Your task to perform on an android device: check storage Image 0: 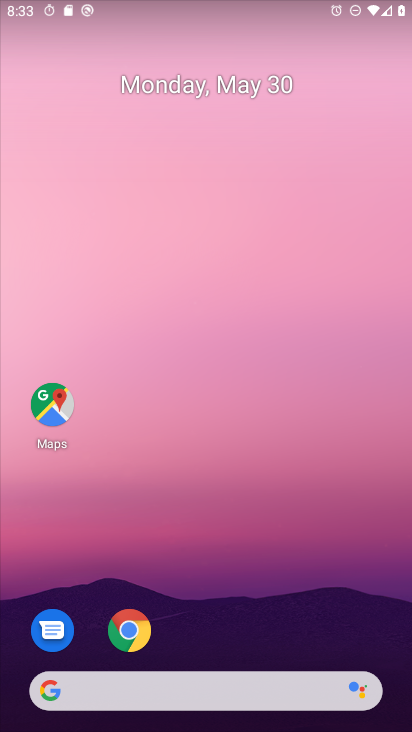
Step 0: drag from (351, 610) to (274, 92)
Your task to perform on an android device: check storage Image 1: 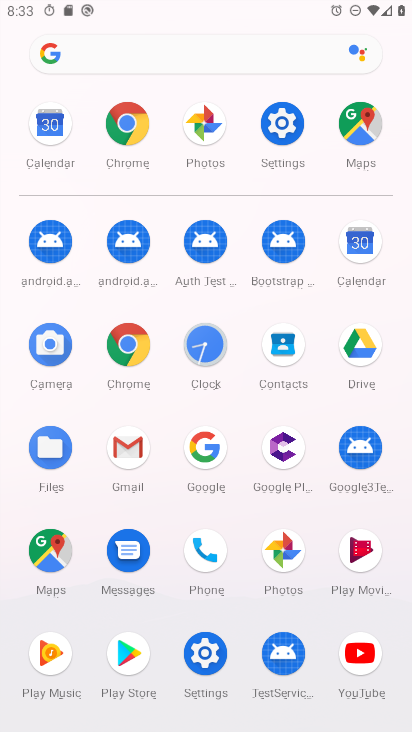
Step 1: click (216, 652)
Your task to perform on an android device: check storage Image 2: 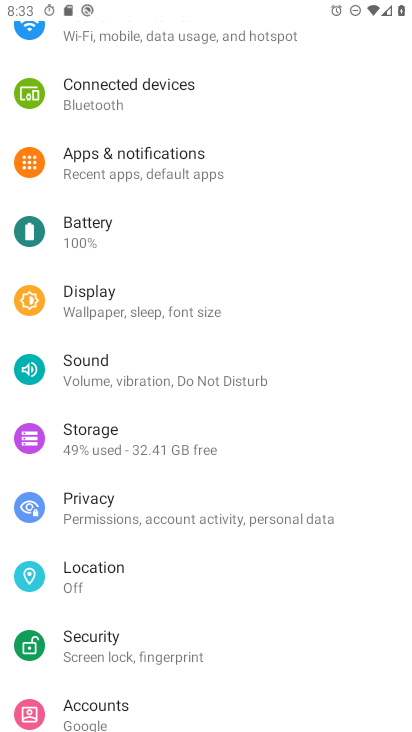
Step 2: click (87, 431)
Your task to perform on an android device: check storage Image 3: 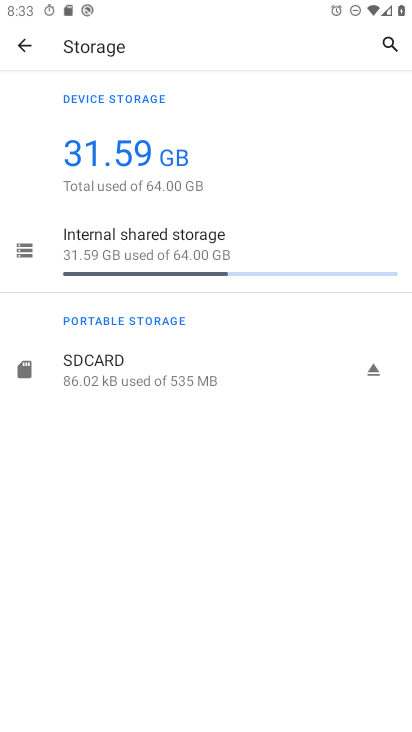
Step 3: click (226, 234)
Your task to perform on an android device: check storage Image 4: 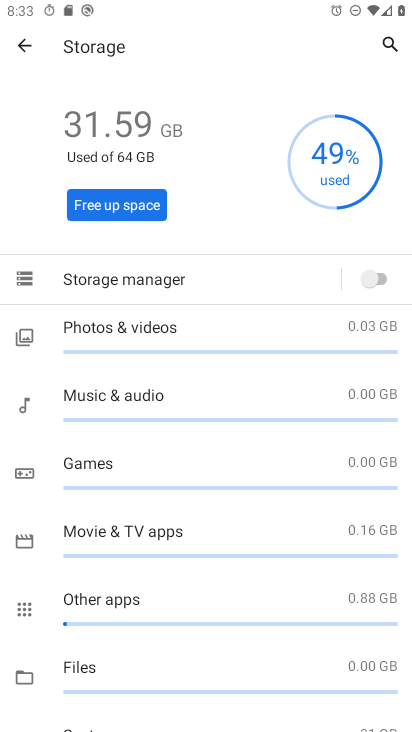
Step 4: task complete